Your task to perform on an android device: Find coffee shops on Maps Image 0: 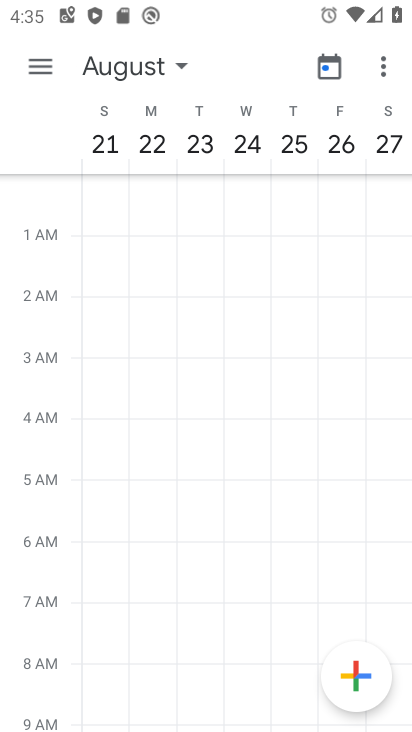
Step 0: press home button
Your task to perform on an android device: Find coffee shops on Maps Image 1: 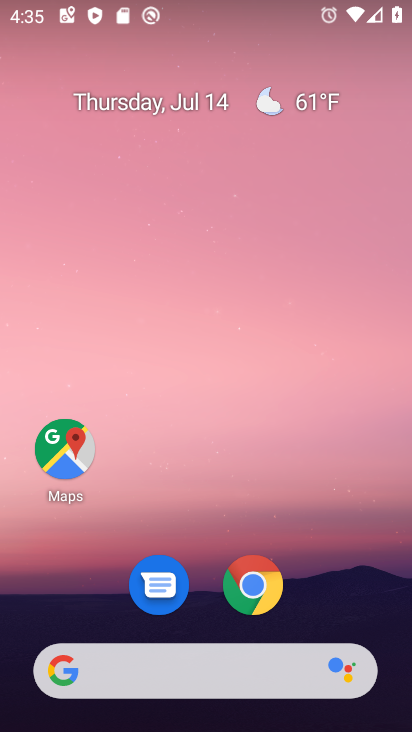
Step 1: click (65, 441)
Your task to perform on an android device: Find coffee shops on Maps Image 2: 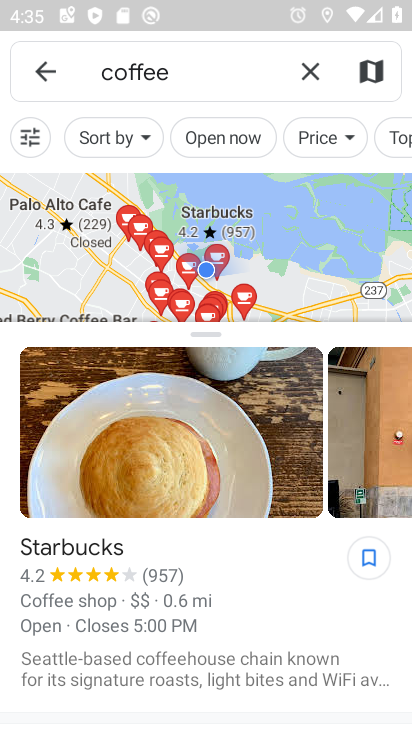
Step 2: task complete